Your task to perform on an android device: move a message to another label in the gmail app Image 0: 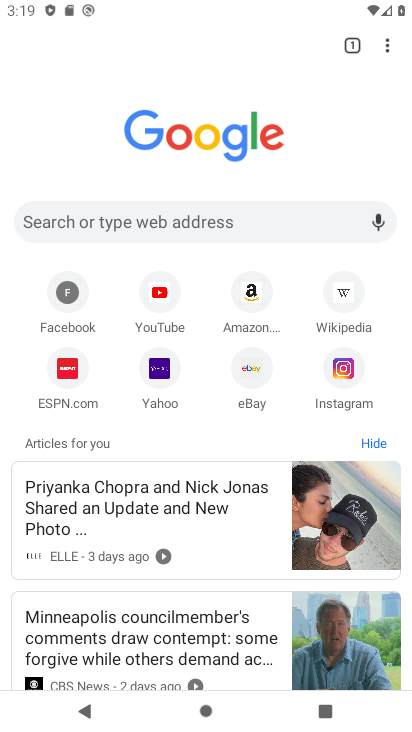
Step 0: press home button
Your task to perform on an android device: move a message to another label in the gmail app Image 1: 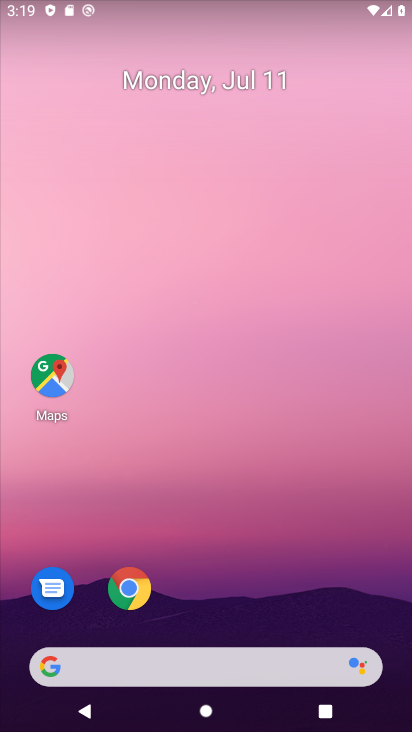
Step 1: drag from (363, 604) to (383, 140)
Your task to perform on an android device: move a message to another label in the gmail app Image 2: 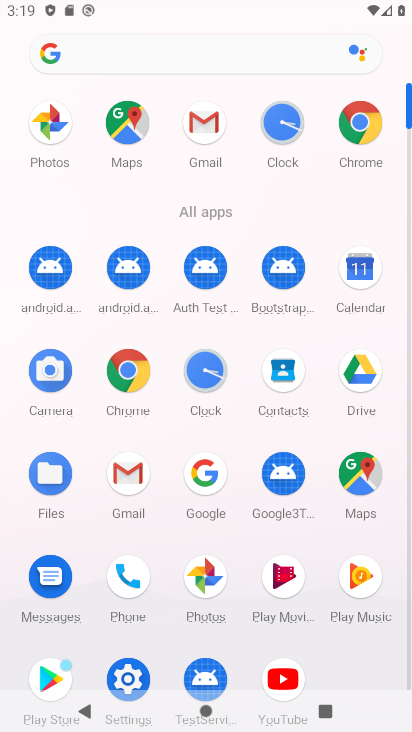
Step 2: click (133, 470)
Your task to perform on an android device: move a message to another label in the gmail app Image 3: 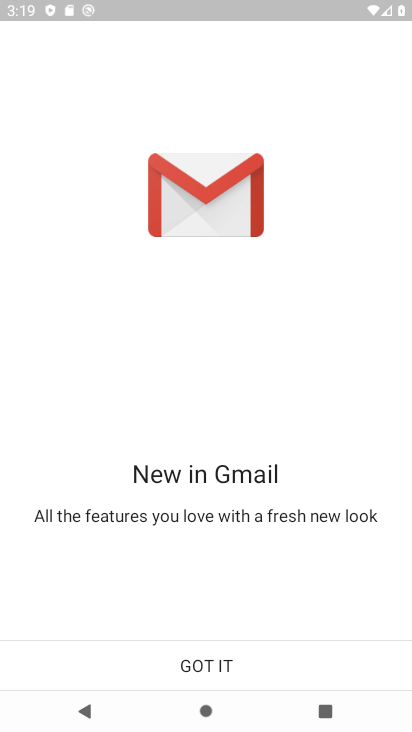
Step 3: click (202, 667)
Your task to perform on an android device: move a message to another label in the gmail app Image 4: 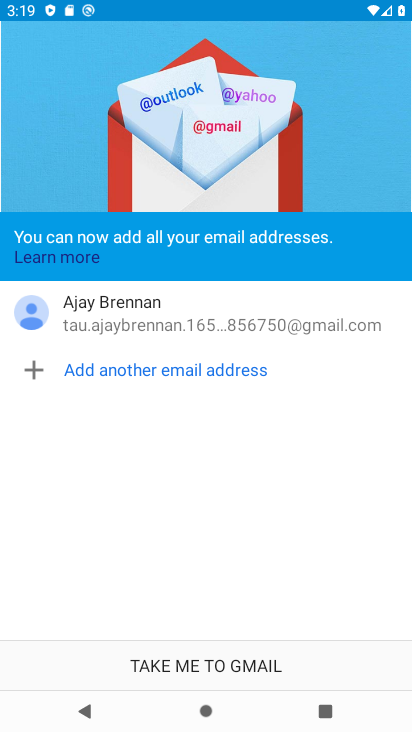
Step 4: click (401, 667)
Your task to perform on an android device: move a message to another label in the gmail app Image 5: 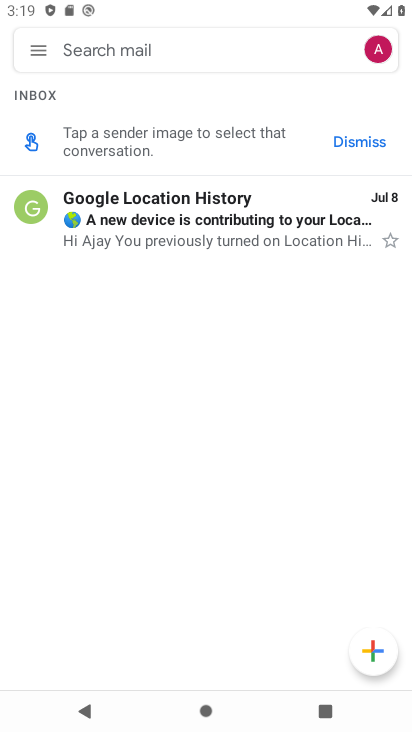
Step 5: click (248, 218)
Your task to perform on an android device: move a message to another label in the gmail app Image 6: 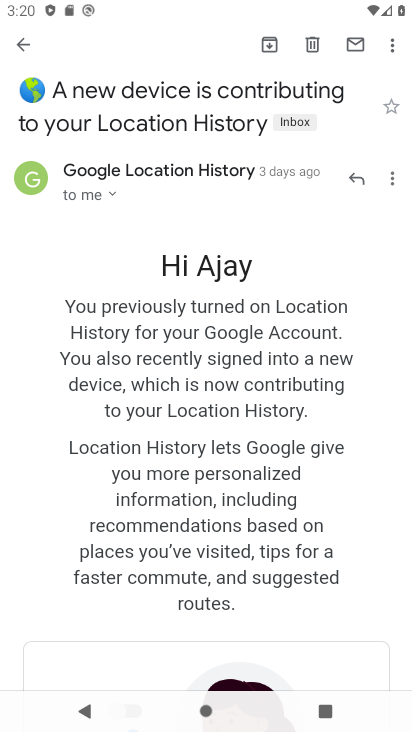
Step 6: click (303, 124)
Your task to perform on an android device: move a message to another label in the gmail app Image 7: 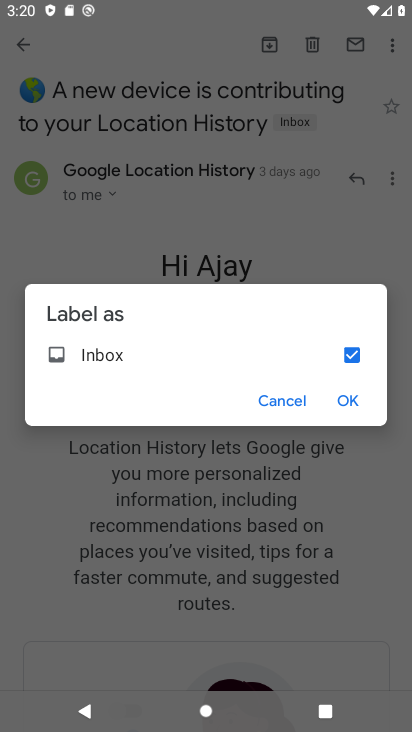
Step 7: click (354, 401)
Your task to perform on an android device: move a message to another label in the gmail app Image 8: 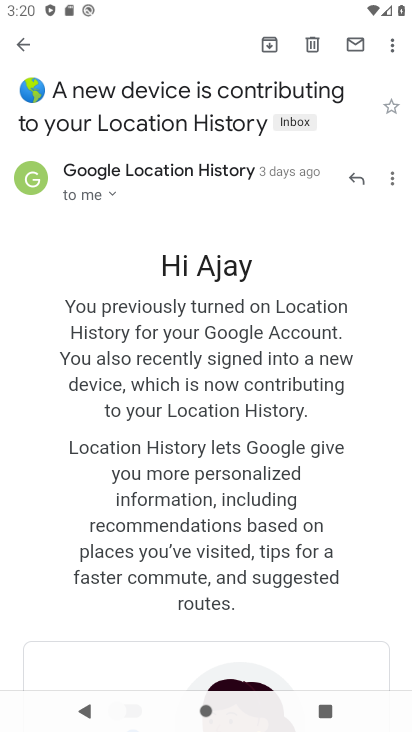
Step 8: task complete